Your task to perform on an android device: Do I have any events tomorrow? Image 0: 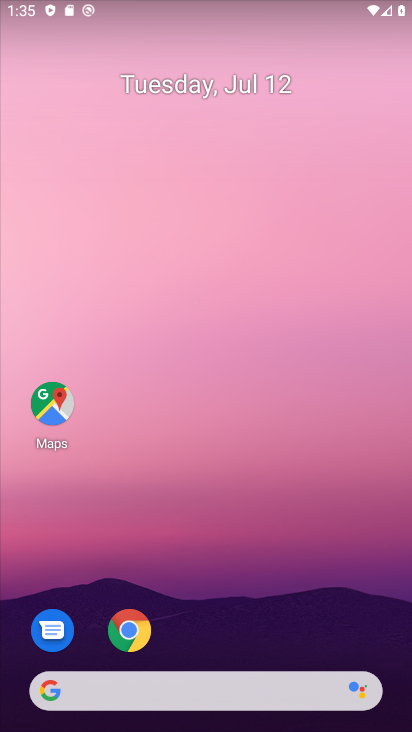
Step 0: drag from (387, 616) to (309, 69)
Your task to perform on an android device: Do I have any events tomorrow? Image 1: 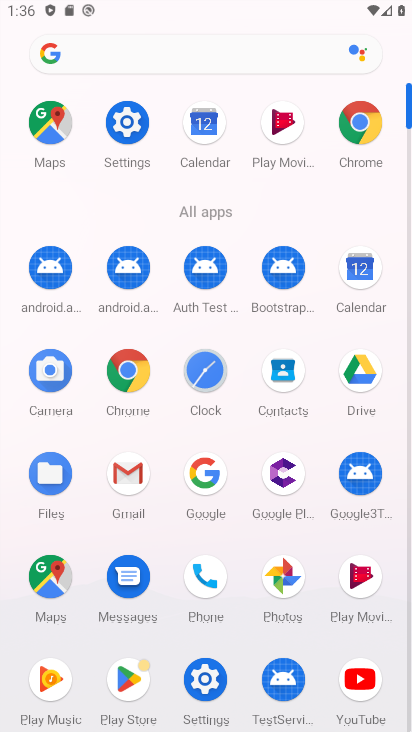
Step 1: click (364, 255)
Your task to perform on an android device: Do I have any events tomorrow? Image 2: 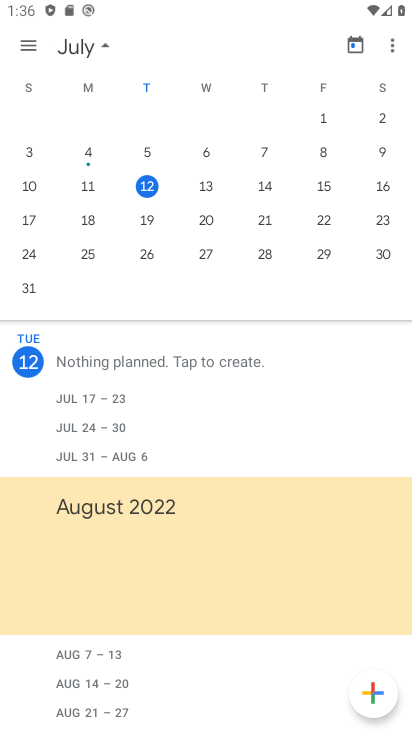
Step 2: click (139, 177)
Your task to perform on an android device: Do I have any events tomorrow? Image 3: 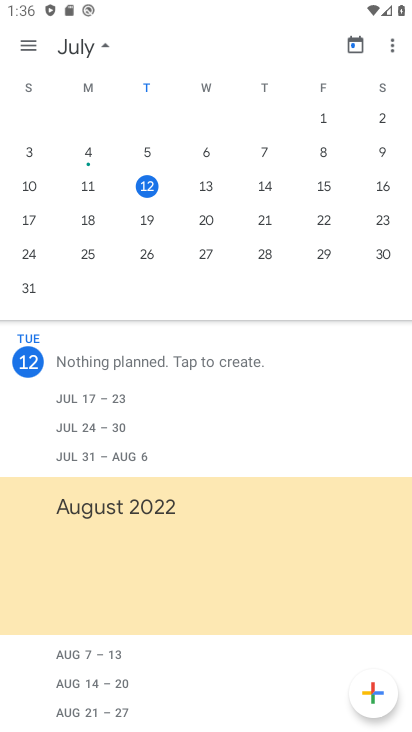
Step 3: task complete